Your task to perform on an android device: find photos in the google photos app Image 0: 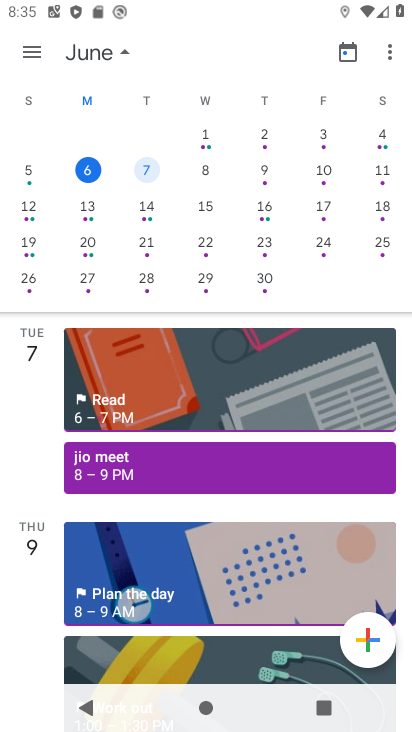
Step 0: press home button
Your task to perform on an android device: find photos in the google photos app Image 1: 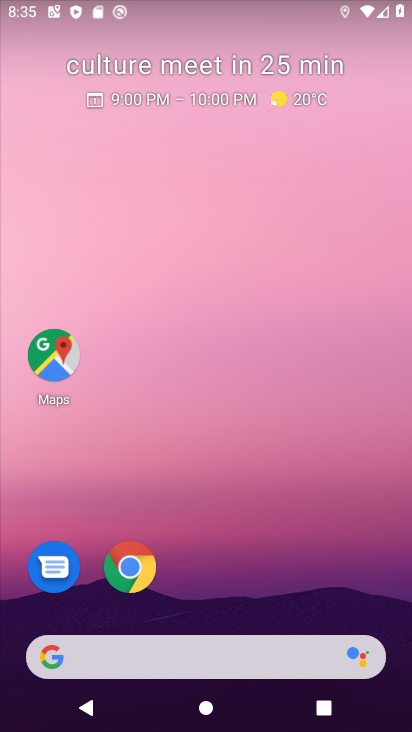
Step 1: drag from (194, 613) to (217, 155)
Your task to perform on an android device: find photos in the google photos app Image 2: 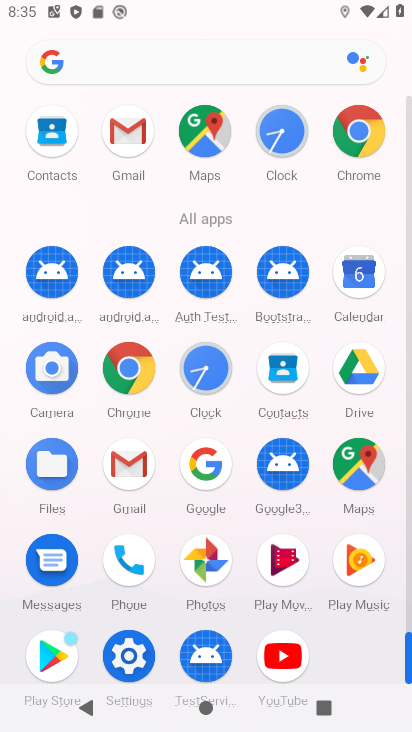
Step 2: click (198, 570)
Your task to perform on an android device: find photos in the google photos app Image 3: 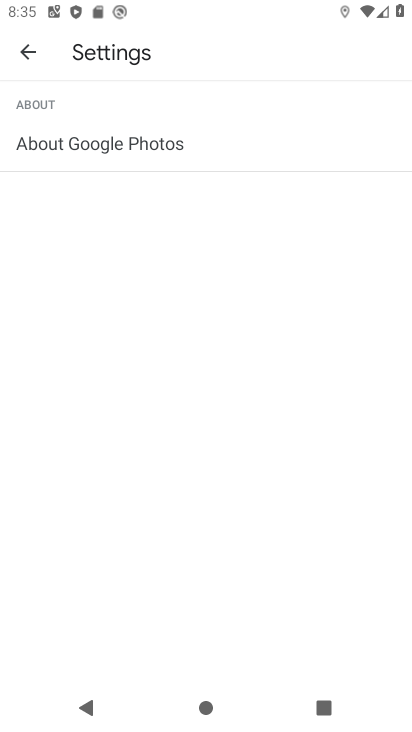
Step 3: click (31, 50)
Your task to perform on an android device: find photos in the google photos app Image 4: 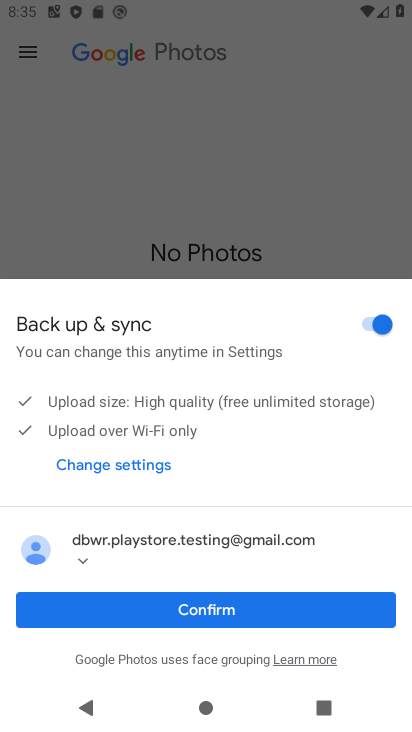
Step 4: click (123, 608)
Your task to perform on an android device: find photos in the google photos app Image 5: 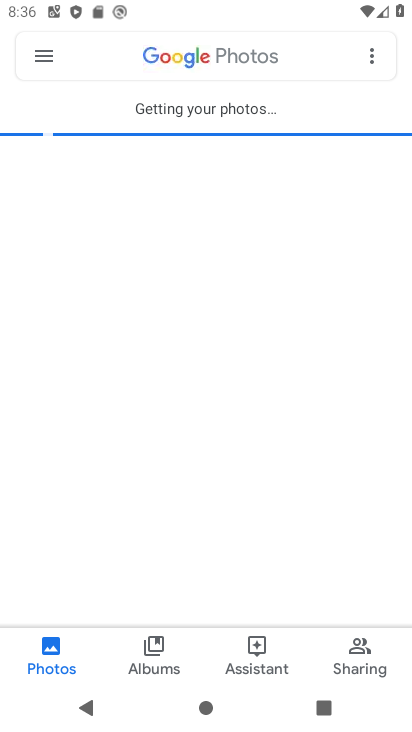
Step 5: task complete